Your task to perform on an android device: Open privacy settings Image 0: 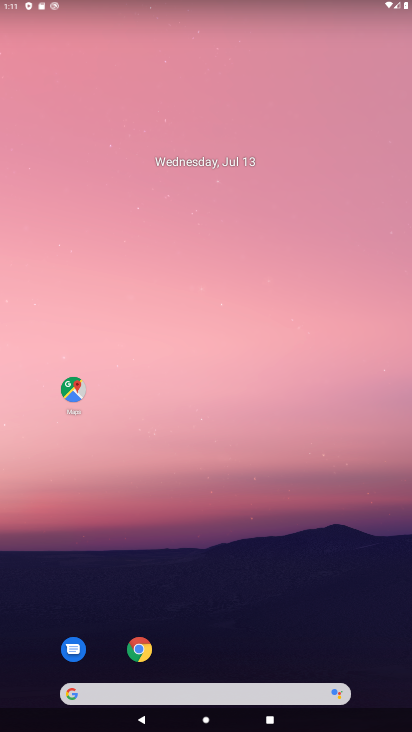
Step 0: click (133, 658)
Your task to perform on an android device: Open privacy settings Image 1: 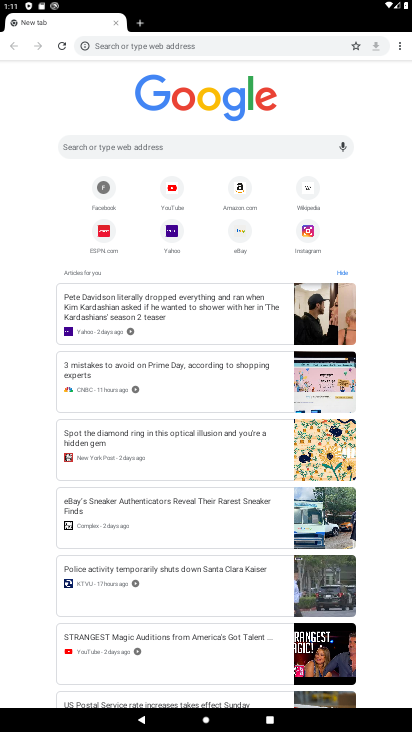
Step 1: drag from (402, 48) to (364, 212)
Your task to perform on an android device: Open privacy settings Image 2: 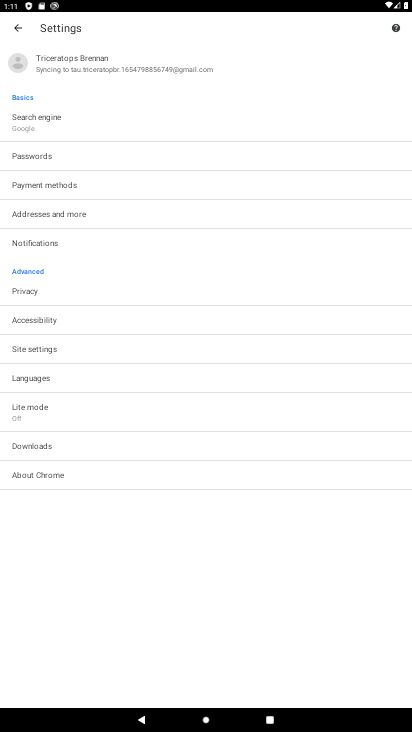
Step 2: click (71, 295)
Your task to perform on an android device: Open privacy settings Image 3: 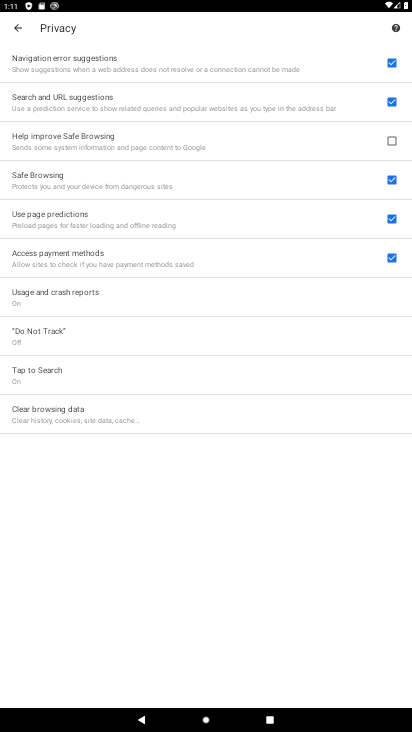
Step 3: task complete